Your task to perform on an android device: Go to internet settings Image 0: 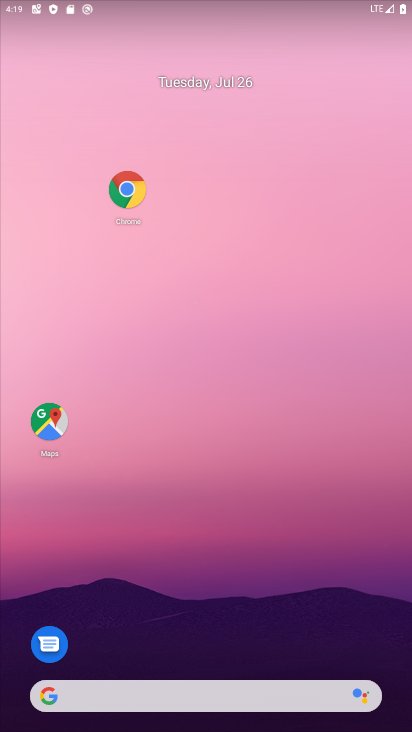
Step 0: drag from (242, 667) to (232, 202)
Your task to perform on an android device: Go to internet settings Image 1: 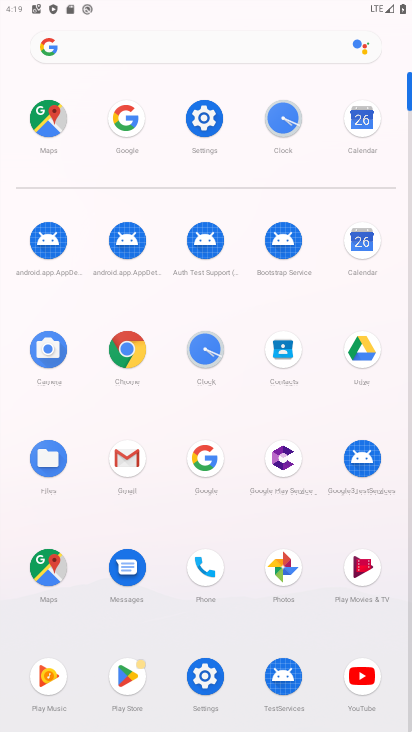
Step 1: click (211, 115)
Your task to perform on an android device: Go to internet settings Image 2: 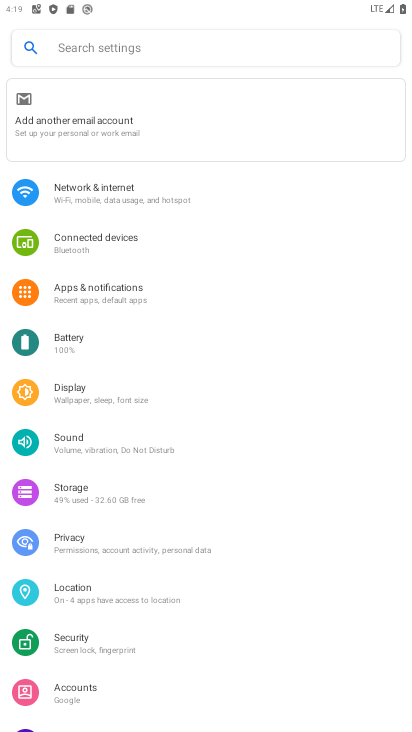
Step 2: click (102, 199)
Your task to perform on an android device: Go to internet settings Image 3: 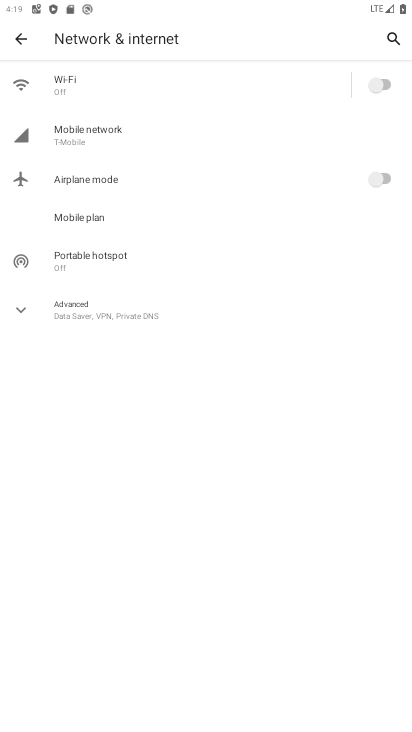
Step 3: click (87, 132)
Your task to perform on an android device: Go to internet settings Image 4: 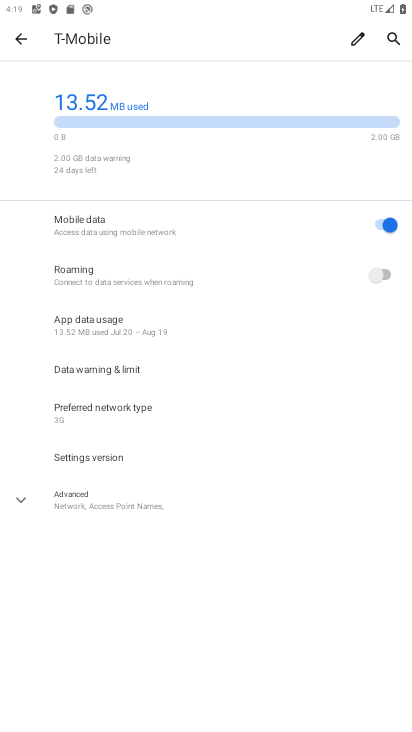
Step 4: task complete